Your task to perform on an android device: turn off notifications in google photos Image 0: 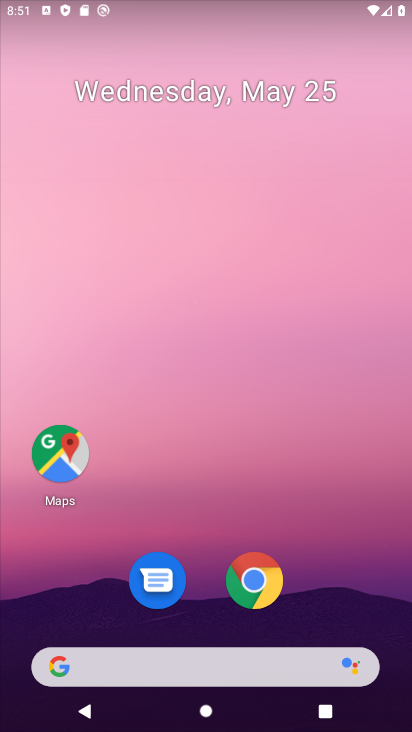
Step 0: drag from (26, 642) to (322, 80)
Your task to perform on an android device: turn off notifications in google photos Image 1: 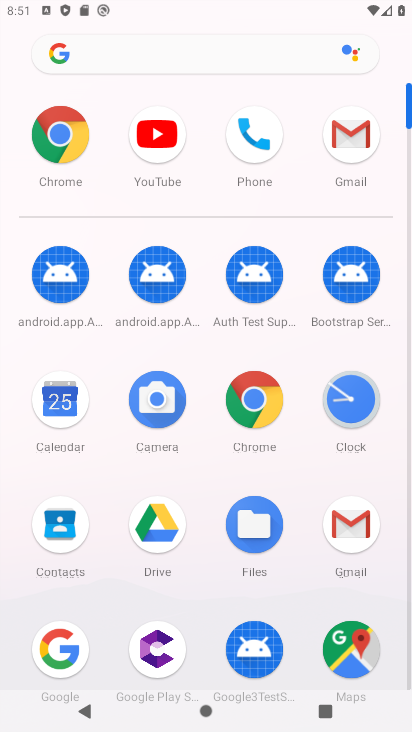
Step 1: drag from (18, 553) to (260, 64)
Your task to perform on an android device: turn off notifications in google photos Image 2: 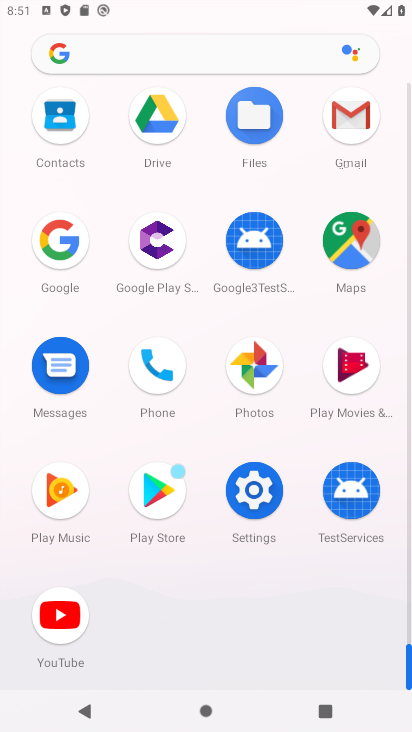
Step 2: click (246, 545)
Your task to perform on an android device: turn off notifications in google photos Image 3: 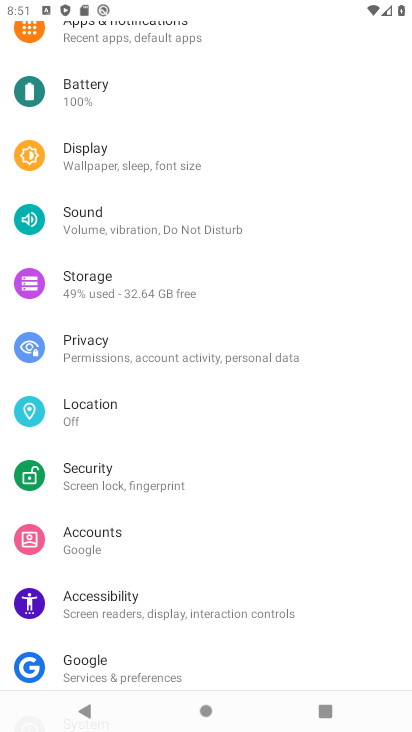
Step 3: drag from (200, 110) to (206, 614)
Your task to perform on an android device: turn off notifications in google photos Image 4: 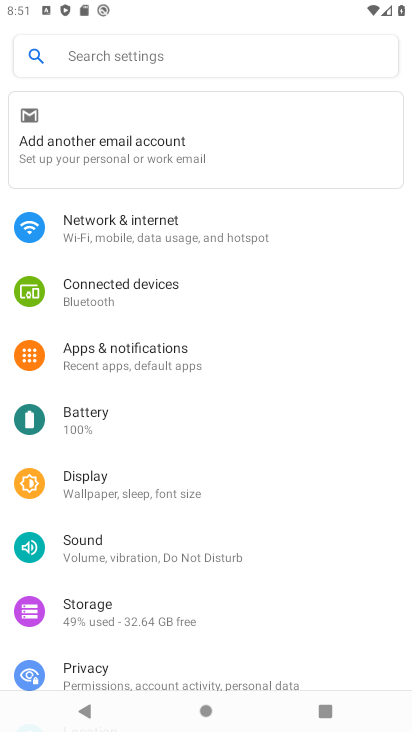
Step 4: click (131, 369)
Your task to perform on an android device: turn off notifications in google photos Image 5: 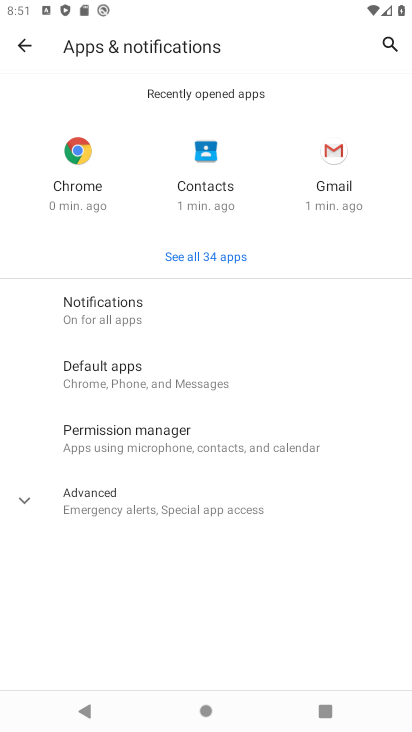
Step 5: click (206, 249)
Your task to perform on an android device: turn off notifications in google photos Image 6: 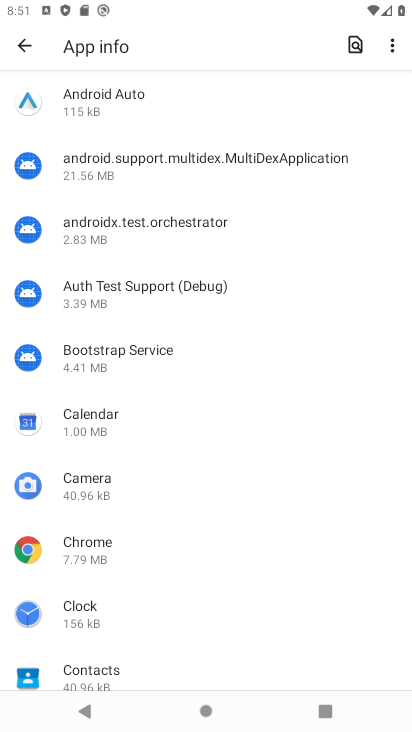
Step 6: drag from (32, 471) to (248, 90)
Your task to perform on an android device: turn off notifications in google photos Image 7: 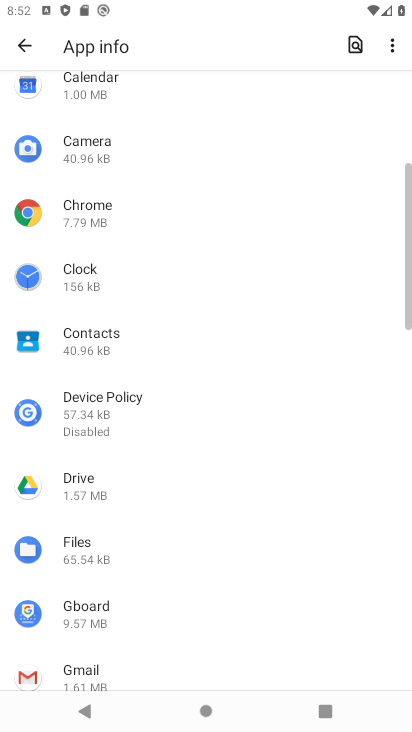
Step 7: drag from (36, 565) to (316, 145)
Your task to perform on an android device: turn off notifications in google photos Image 8: 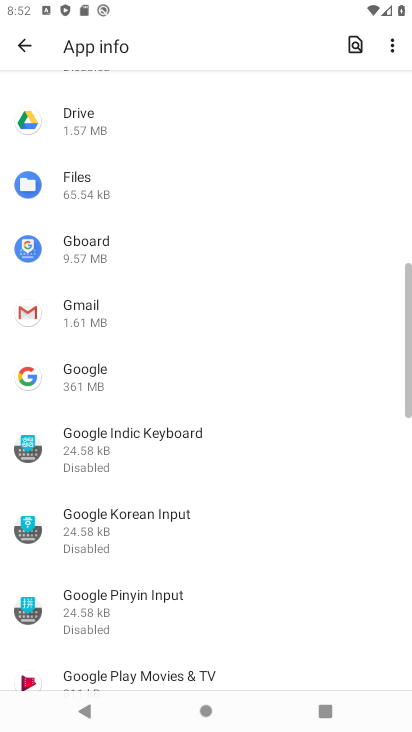
Step 8: drag from (22, 552) to (323, 128)
Your task to perform on an android device: turn off notifications in google photos Image 9: 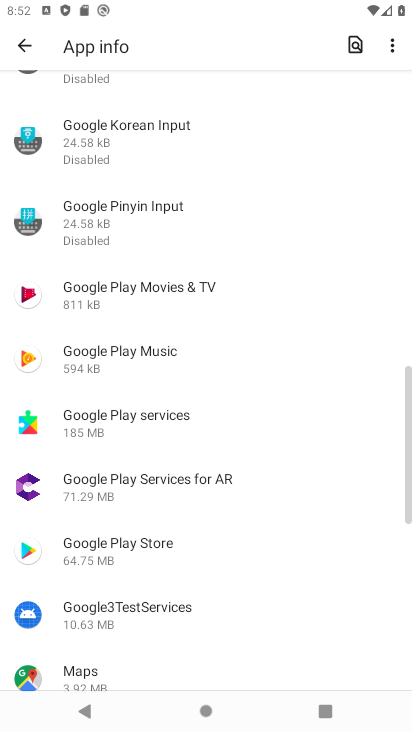
Step 9: drag from (14, 511) to (238, 207)
Your task to perform on an android device: turn off notifications in google photos Image 10: 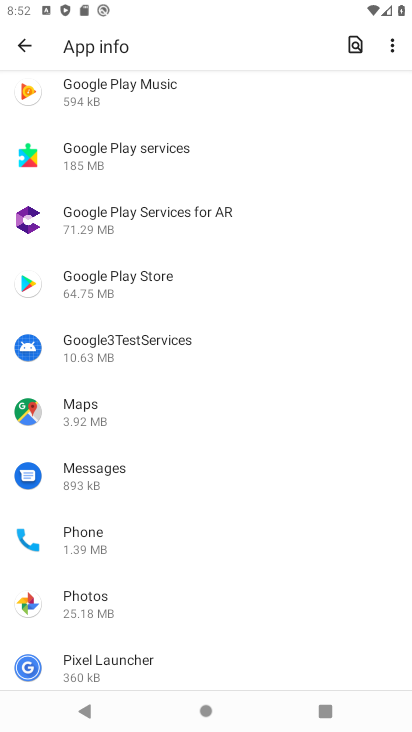
Step 10: click (31, 581)
Your task to perform on an android device: turn off notifications in google photos Image 11: 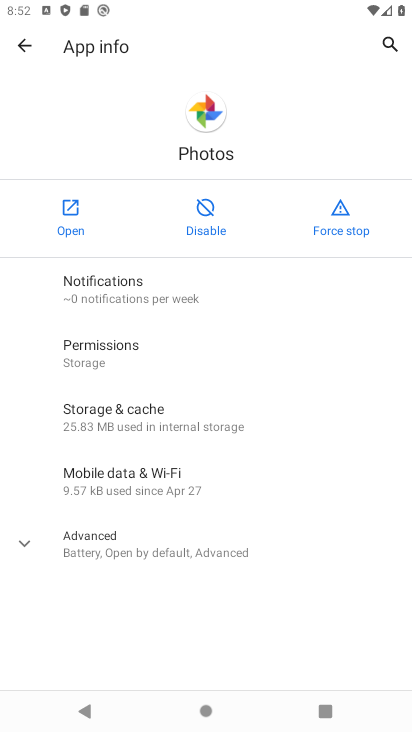
Step 11: click (170, 275)
Your task to perform on an android device: turn off notifications in google photos Image 12: 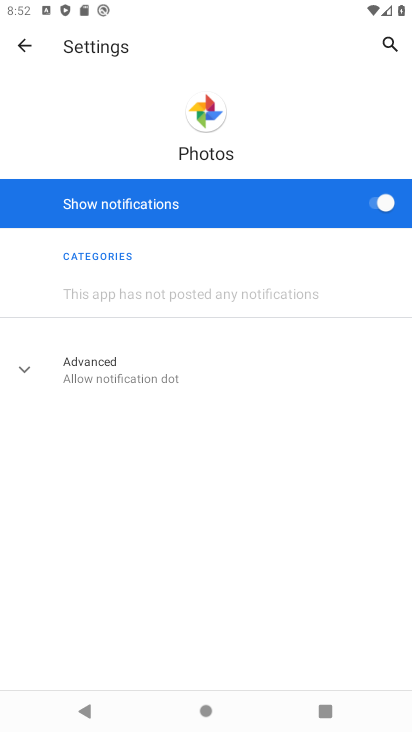
Step 12: click (380, 206)
Your task to perform on an android device: turn off notifications in google photos Image 13: 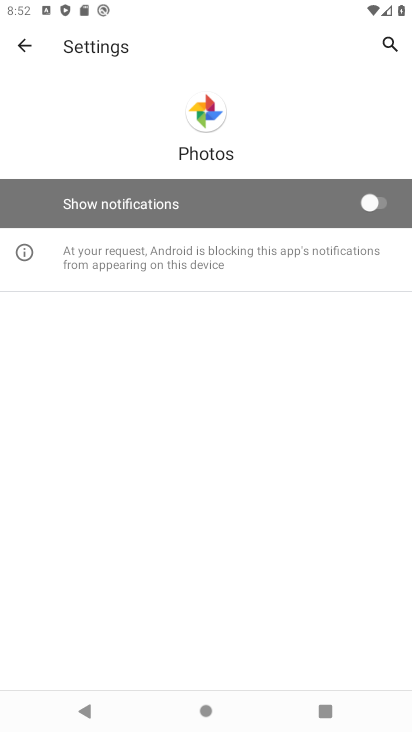
Step 13: task complete